Your task to perform on an android device: toggle location history Image 0: 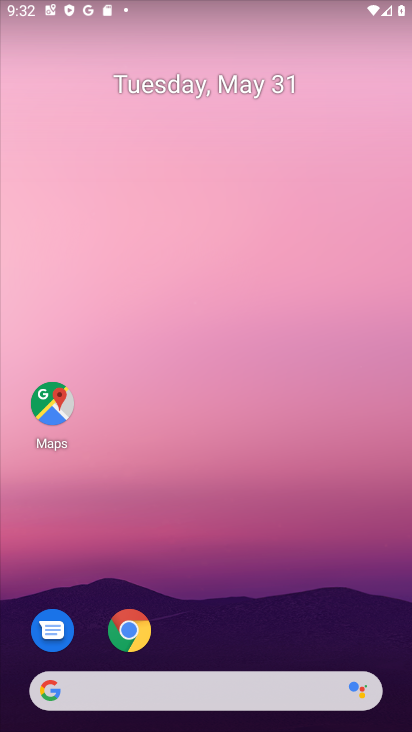
Step 0: drag from (126, 724) to (219, 3)
Your task to perform on an android device: toggle location history Image 1: 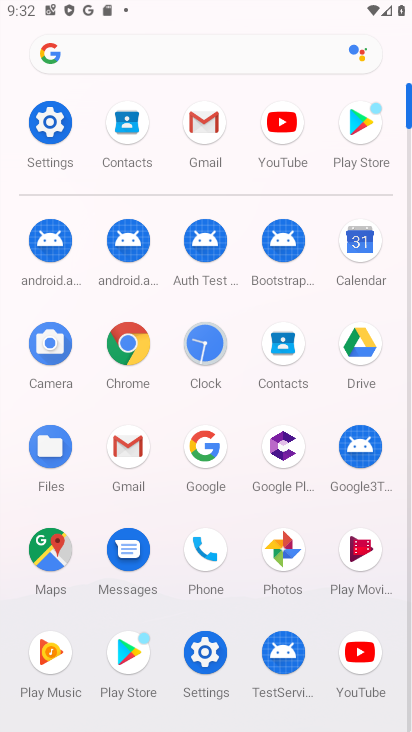
Step 1: click (202, 663)
Your task to perform on an android device: toggle location history Image 2: 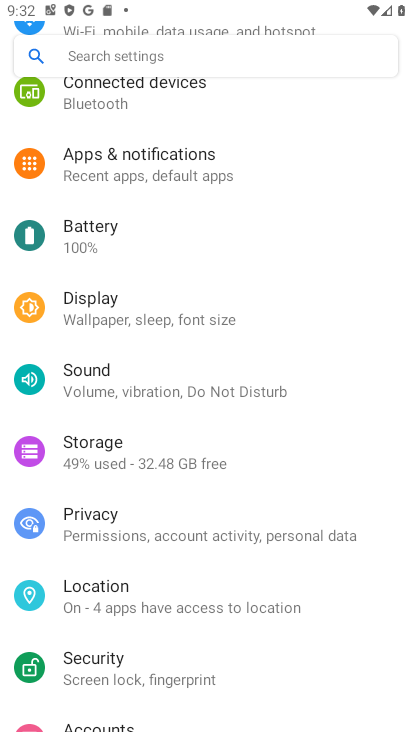
Step 2: drag from (147, 686) to (193, 347)
Your task to perform on an android device: toggle location history Image 3: 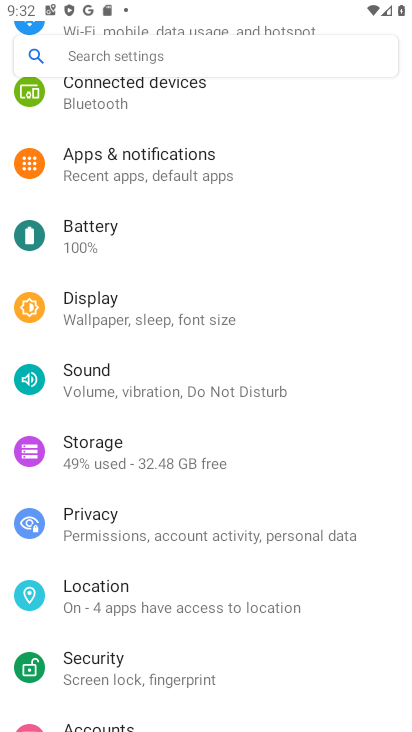
Step 3: click (87, 605)
Your task to perform on an android device: toggle location history Image 4: 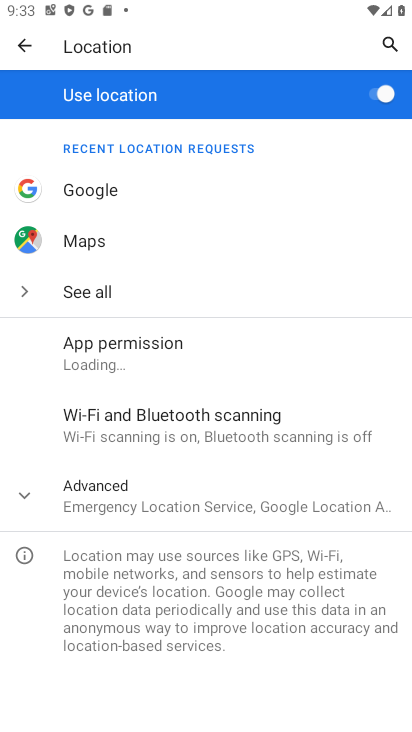
Step 4: click (208, 495)
Your task to perform on an android device: toggle location history Image 5: 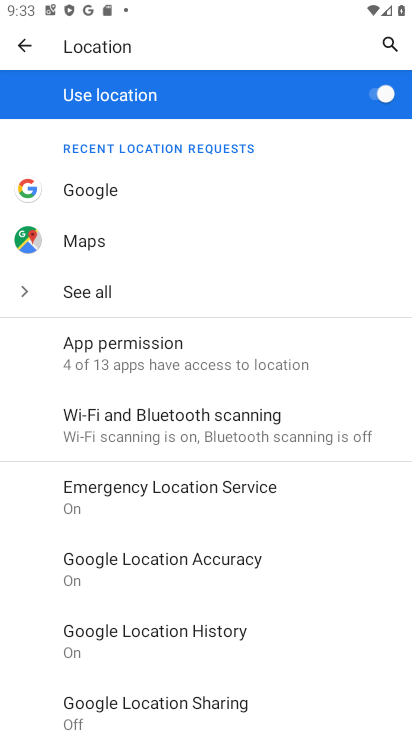
Step 5: click (225, 638)
Your task to perform on an android device: toggle location history Image 6: 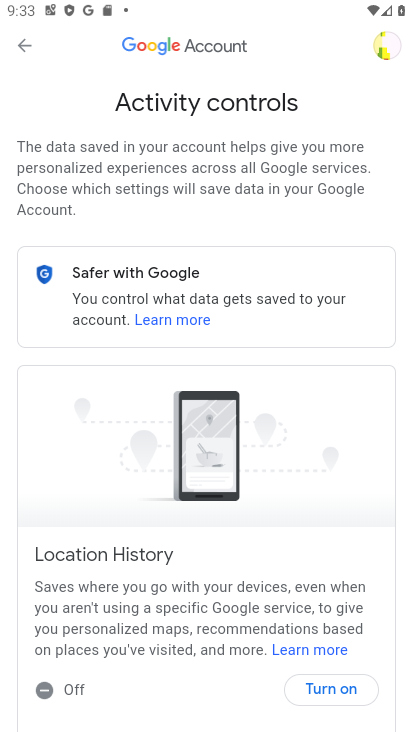
Step 6: click (333, 694)
Your task to perform on an android device: toggle location history Image 7: 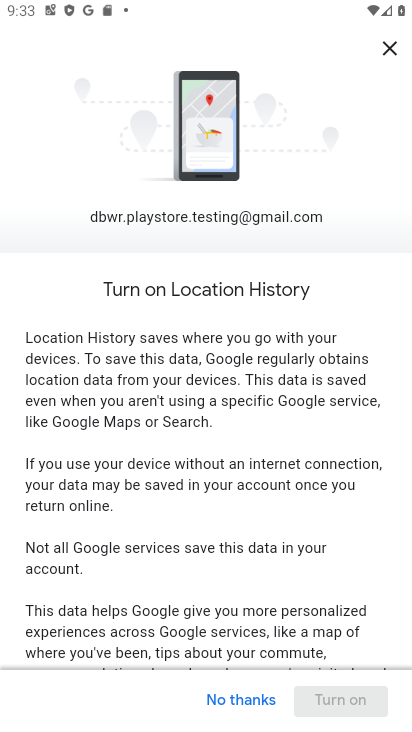
Step 7: drag from (308, 622) to (282, 242)
Your task to perform on an android device: toggle location history Image 8: 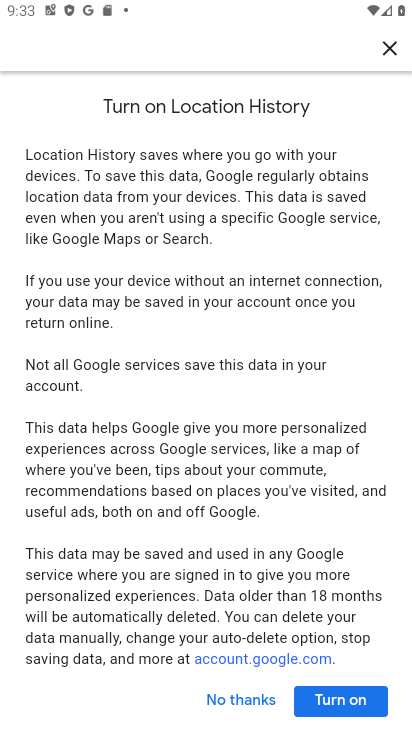
Step 8: click (361, 708)
Your task to perform on an android device: toggle location history Image 9: 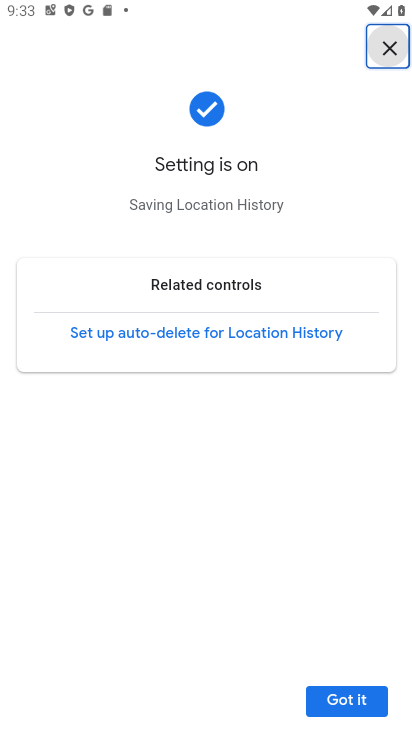
Step 9: click (338, 709)
Your task to perform on an android device: toggle location history Image 10: 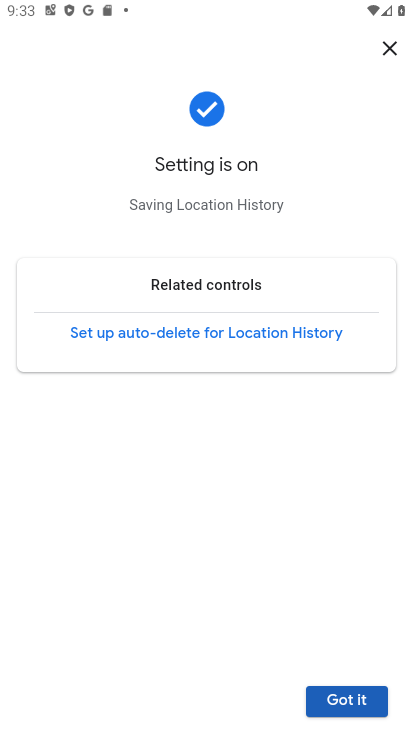
Step 10: click (350, 706)
Your task to perform on an android device: toggle location history Image 11: 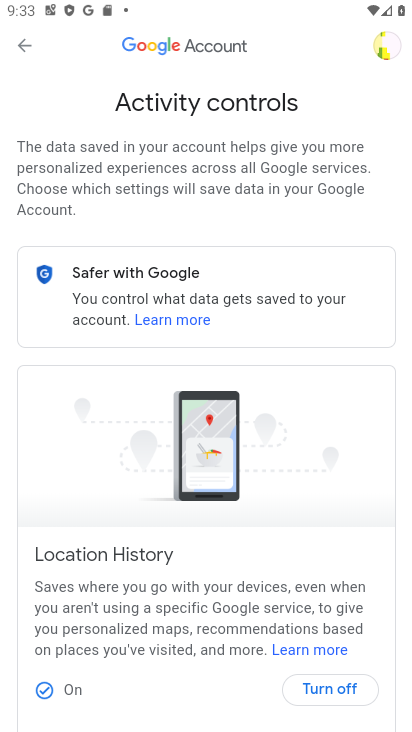
Step 11: task complete